Your task to perform on an android device: Open eBay Image 0: 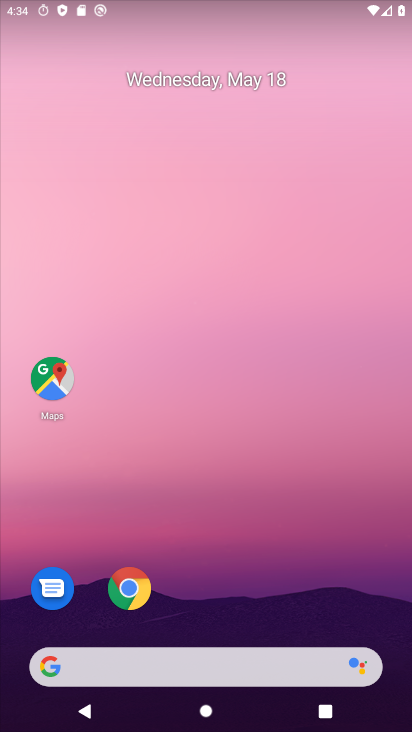
Step 0: click (139, 584)
Your task to perform on an android device: Open eBay Image 1: 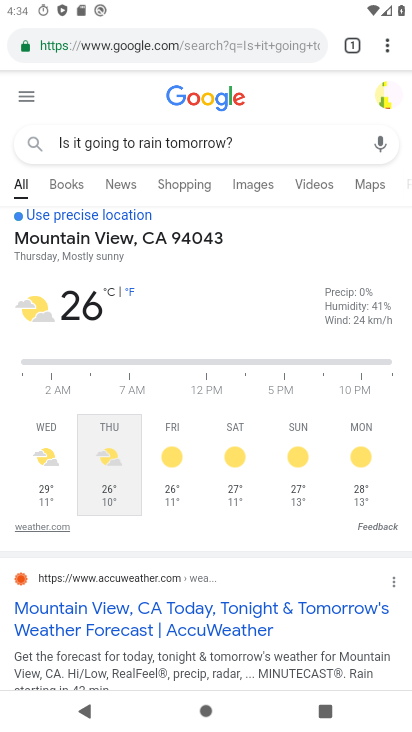
Step 1: click (291, 41)
Your task to perform on an android device: Open eBay Image 2: 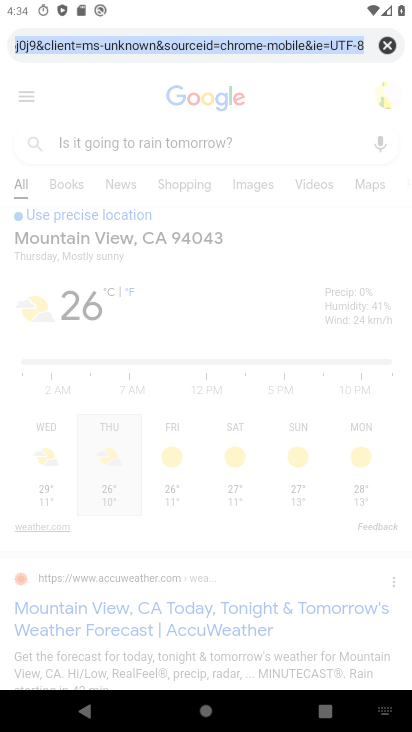
Step 2: click (383, 45)
Your task to perform on an android device: Open eBay Image 3: 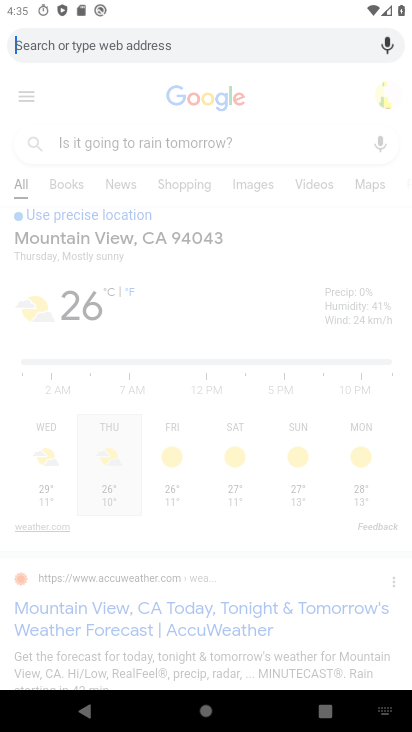
Step 3: type " eBay"
Your task to perform on an android device: Open eBay Image 4: 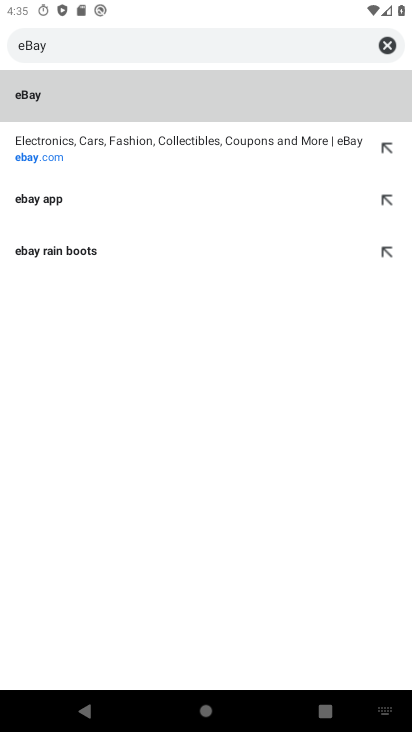
Step 4: click (38, 158)
Your task to perform on an android device: Open eBay Image 5: 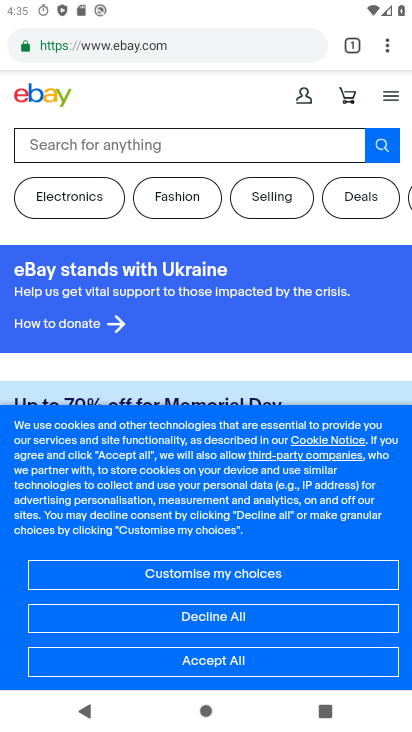
Step 5: task complete